Your task to perform on an android device: What's US dollar exchange rate against the Chinese Yuan? Image 0: 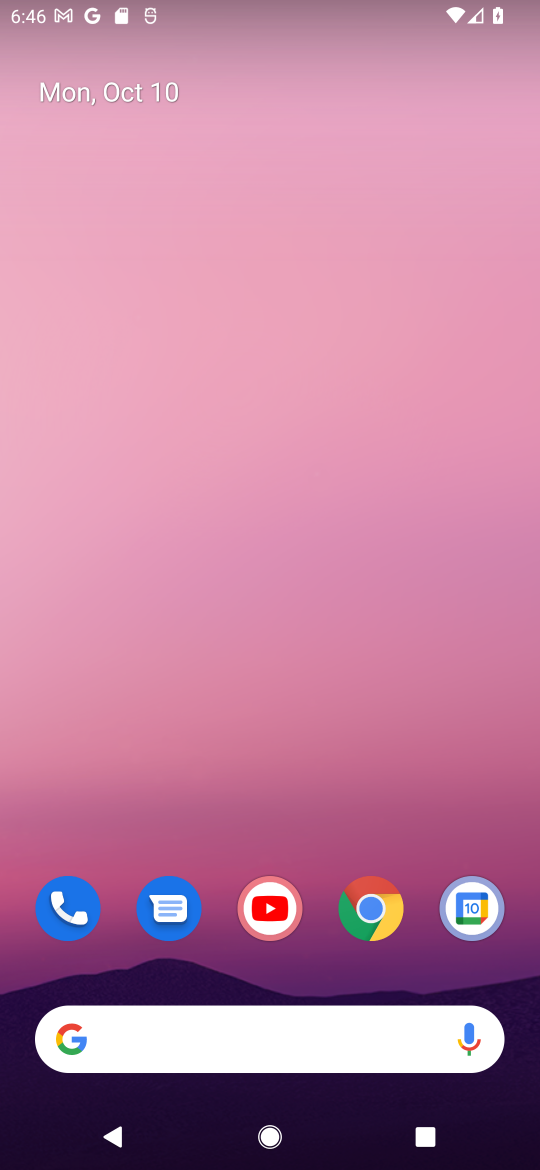
Step 0: drag from (324, 913) to (365, 155)
Your task to perform on an android device: What's US dollar exchange rate against the Chinese Yuan? Image 1: 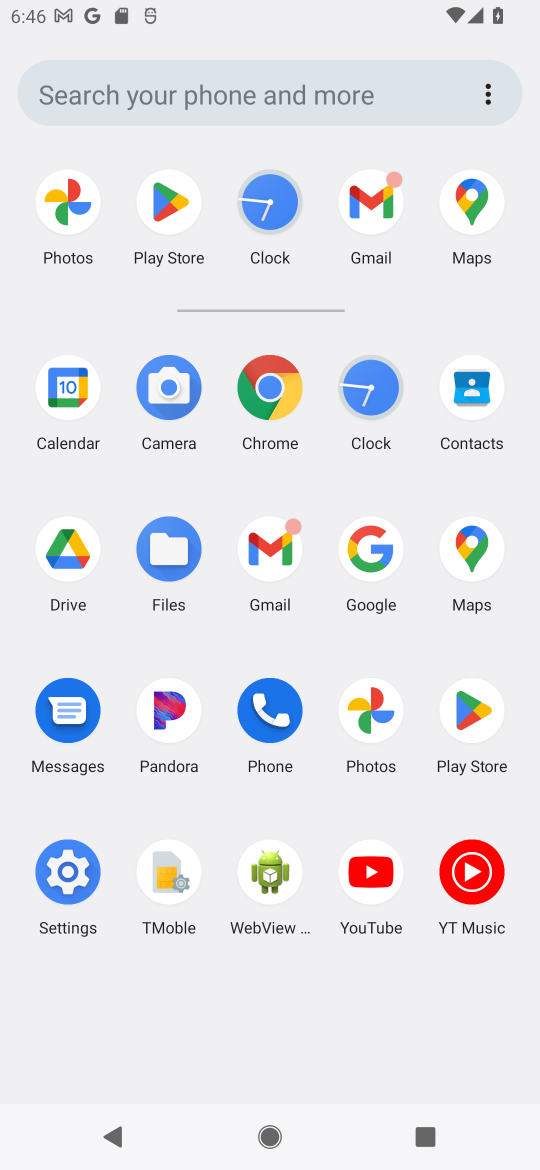
Step 1: click (264, 394)
Your task to perform on an android device: What's US dollar exchange rate against the Chinese Yuan? Image 2: 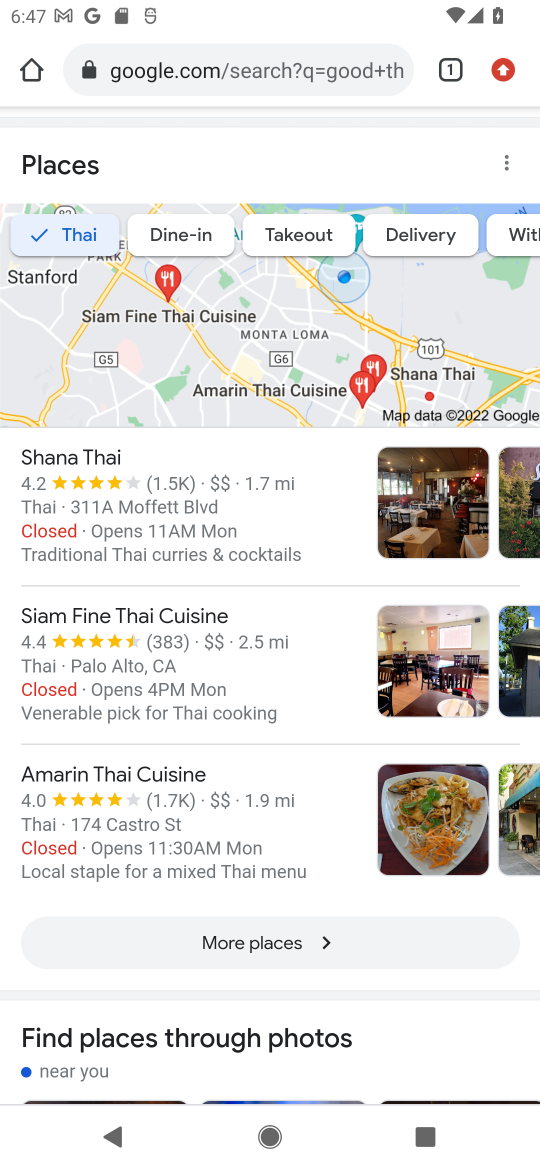
Step 2: click (274, 69)
Your task to perform on an android device: What's US dollar exchange rate against the Chinese Yuan? Image 3: 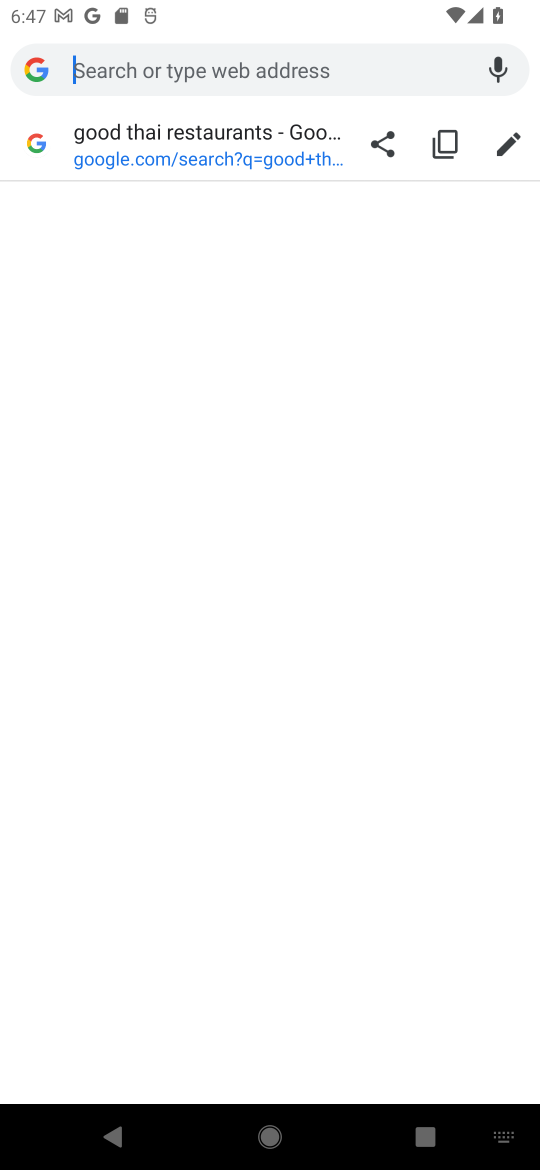
Step 3: type "What's US dollar exchange rate "
Your task to perform on an android device: What's US dollar exchange rate against the Chinese Yuan? Image 4: 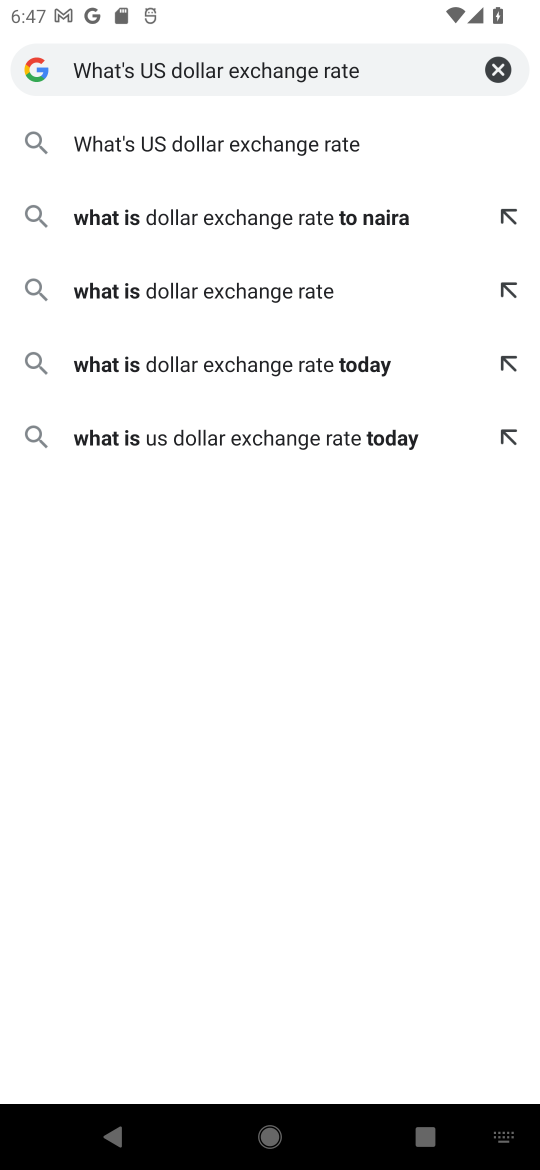
Step 4: type "against the Chinese Yaun?"
Your task to perform on an android device: What's US dollar exchange rate against the Chinese Yuan? Image 5: 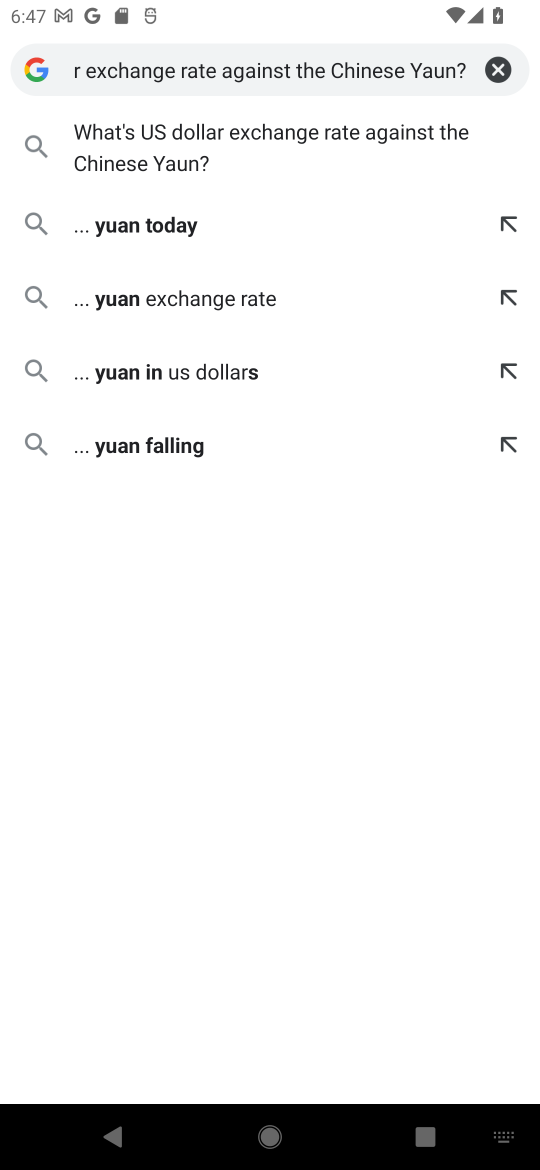
Step 5: press enter
Your task to perform on an android device: What's US dollar exchange rate against the Chinese Yuan? Image 6: 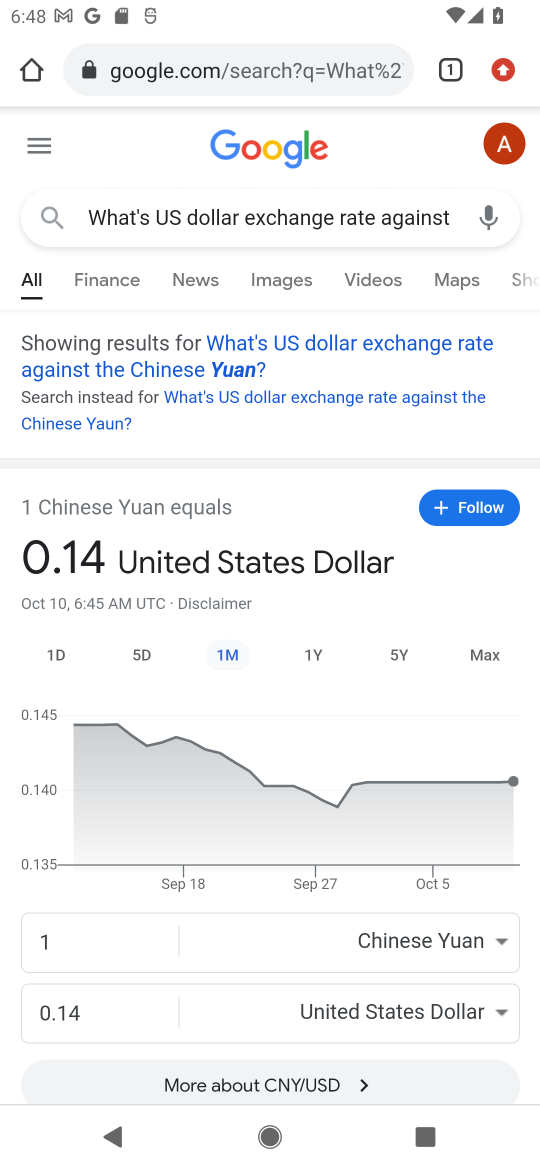
Step 6: task complete